Your task to perform on an android device: Open display settings Image 0: 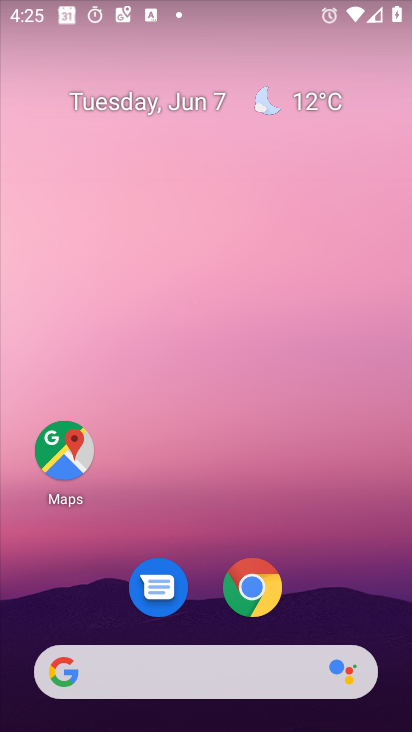
Step 0: drag from (220, 580) to (194, 52)
Your task to perform on an android device: Open display settings Image 1: 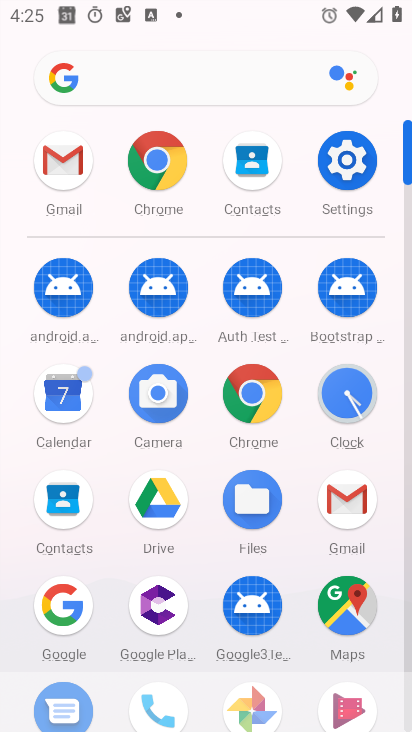
Step 1: click (353, 181)
Your task to perform on an android device: Open display settings Image 2: 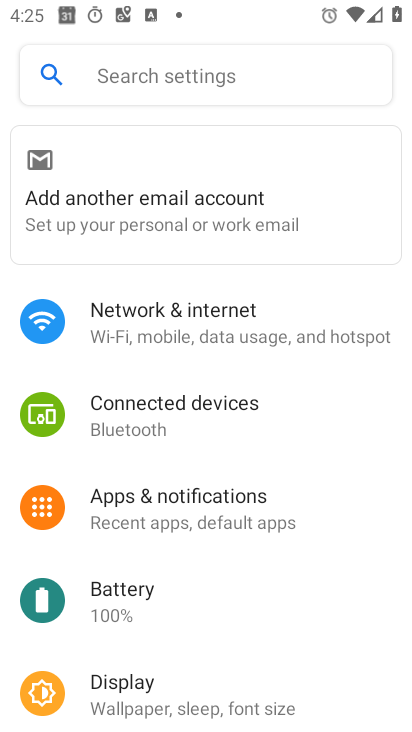
Step 2: drag from (236, 567) to (239, 232)
Your task to perform on an android device: Open display settings Image 3: 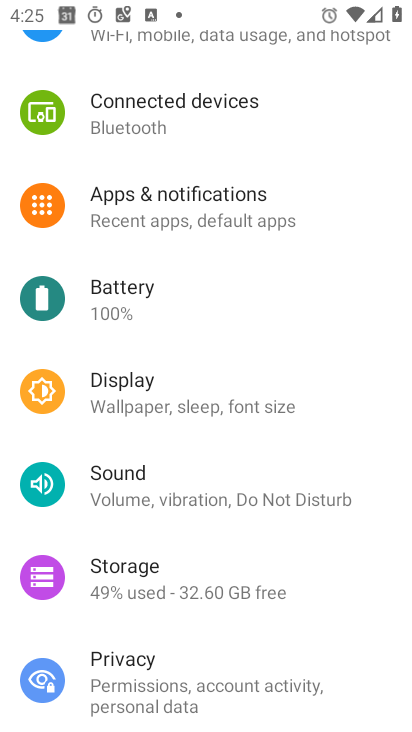
Step 3: click (164, 397)
Your task to perform on an android device: Open display settings Image 4: 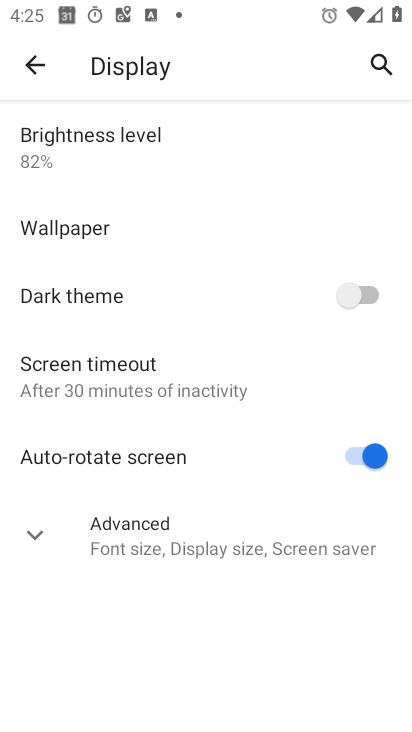
Step 4: task complete